Your task to perform on an android device: turn on bluetooth scan Image 0: 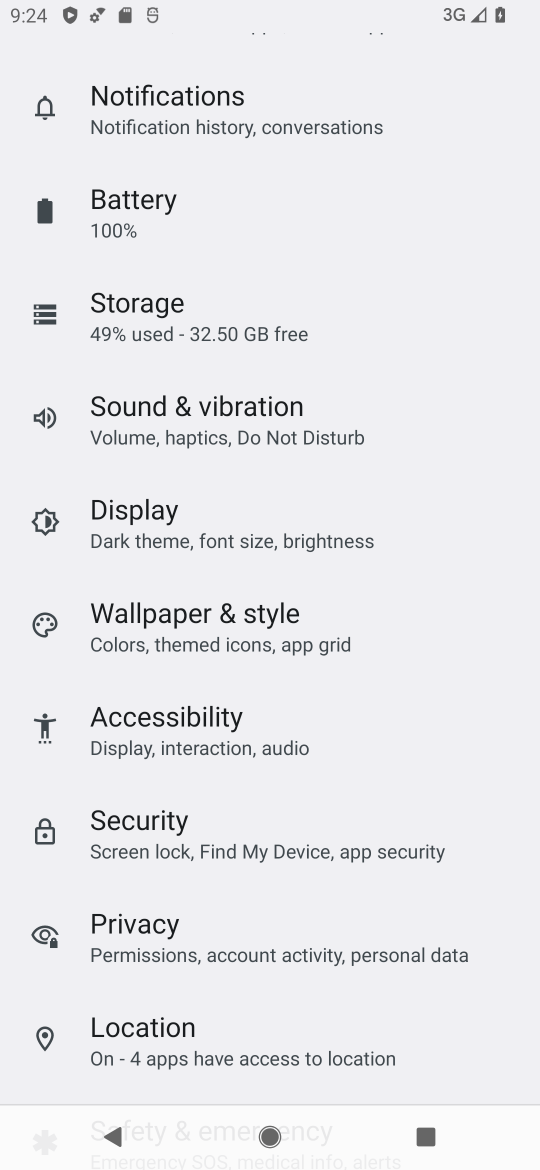
Step 0: press home button
Your task to perform on an android device: turn on bluetooth scan Image 1: 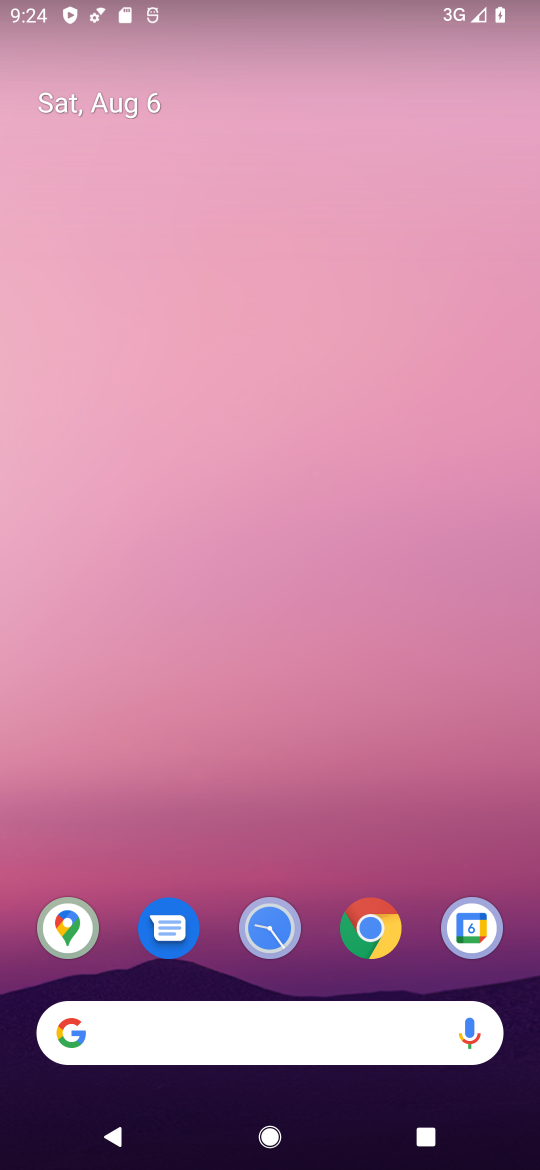
Step 1: drag from (292, 794) to (228, 232)
Your task to perform on an android device: turn on bluetooth scan Image 2: 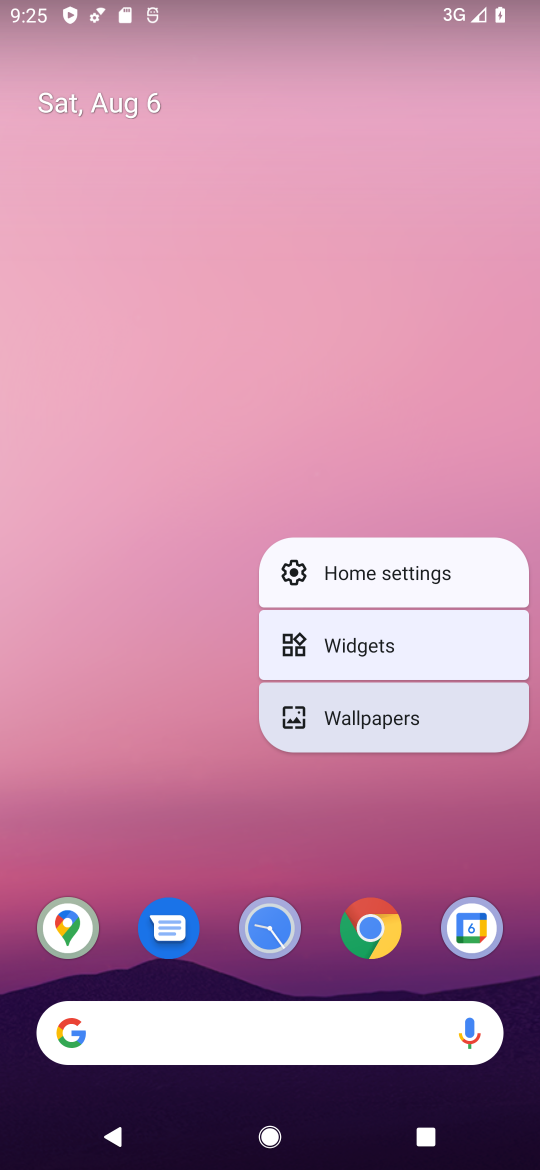
Step 2: click (143, 609)
Your task to perform on an android device: turn on bluetooth scan Image 3: 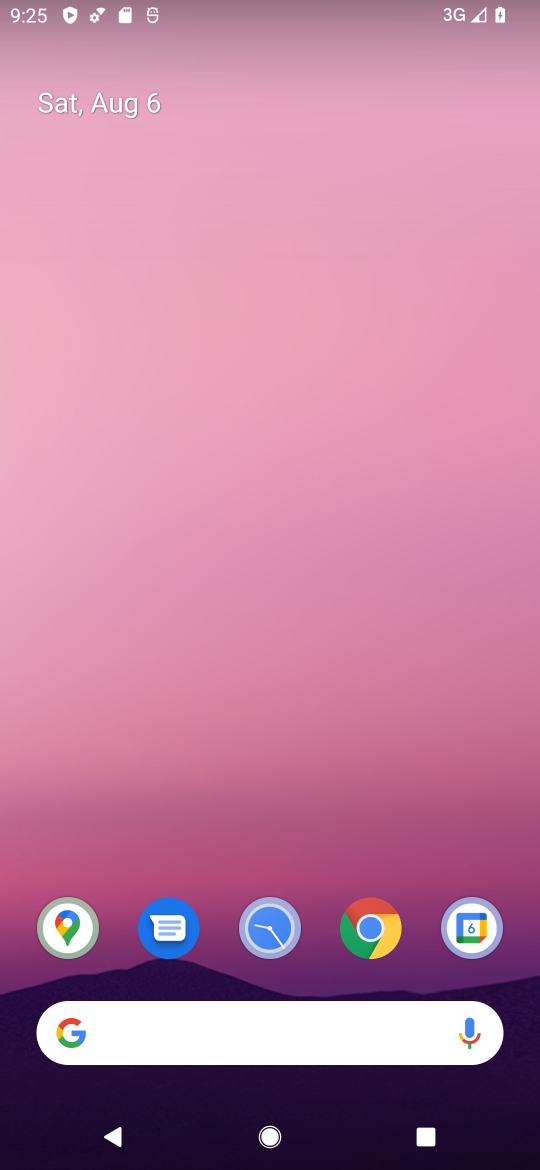
Step 3: drag from (257, 820) to (254, 202)
Your task to perform on an android device: turn on bluetooth scan Image 4: 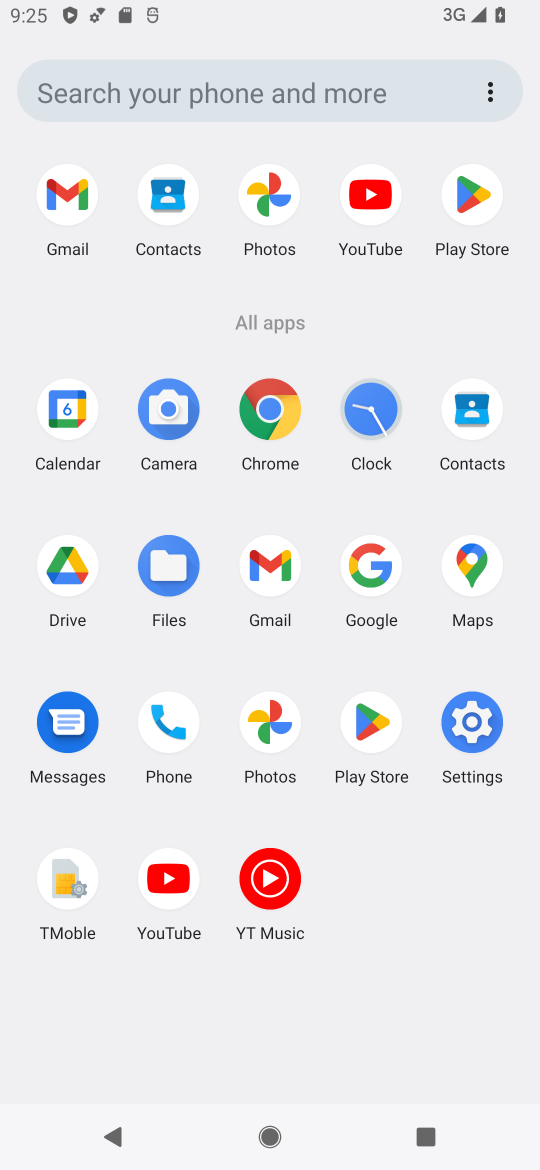
Step 4: click (473, 717)
Your task to perform on an android device: turn on bluetooth scan Image 5: 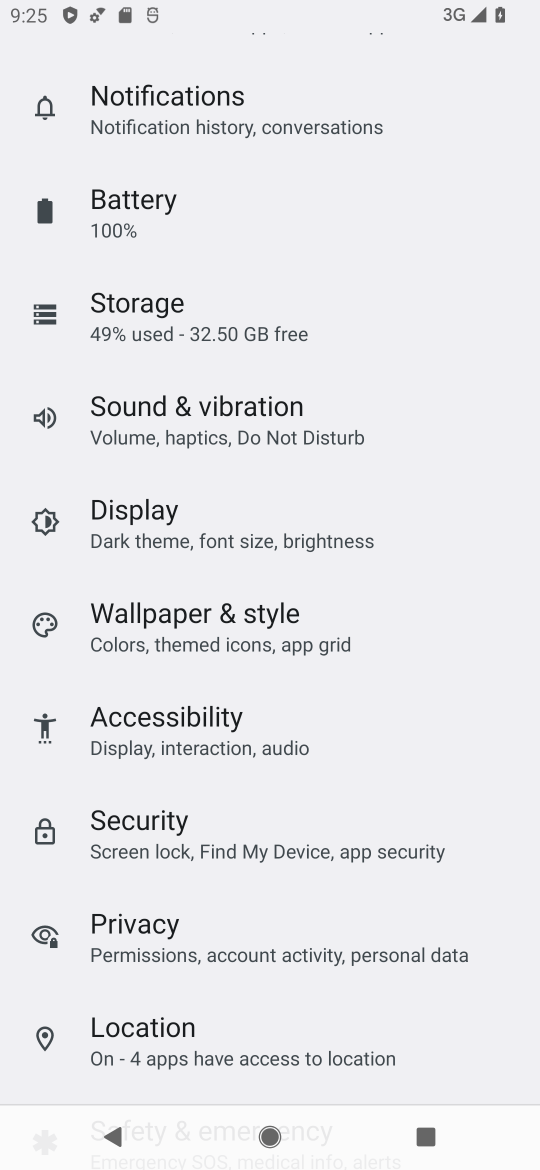
Step 5: click (148, 1022)
Your task to perform on an android device: turn on bluetooth scan Image 6: 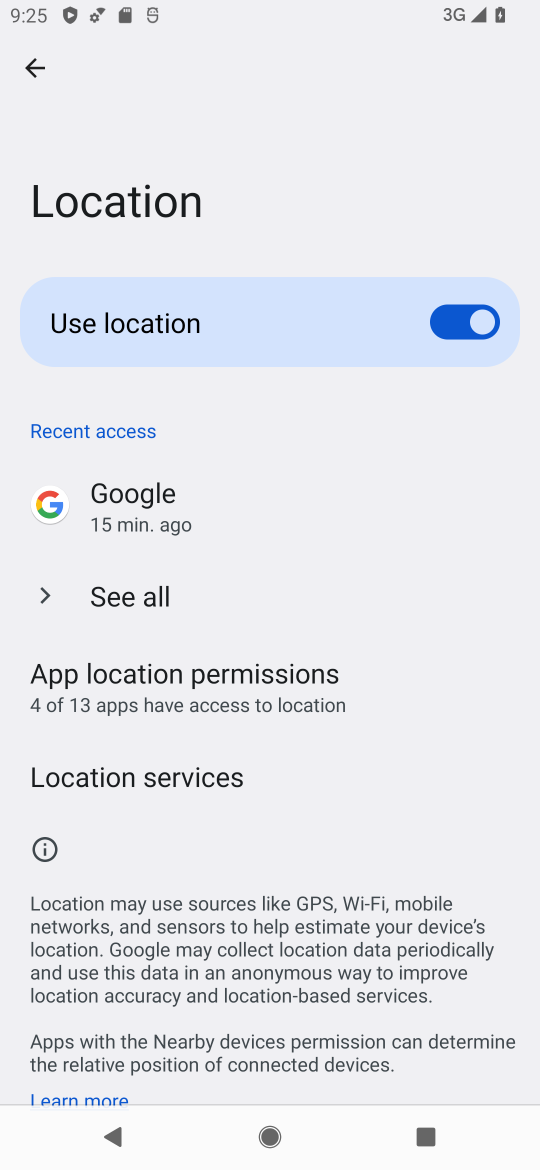
Step 6: drag from (309, 856) to (276, 445)
Your task to perform on an android device: turn on bluetooth scan Image 7: 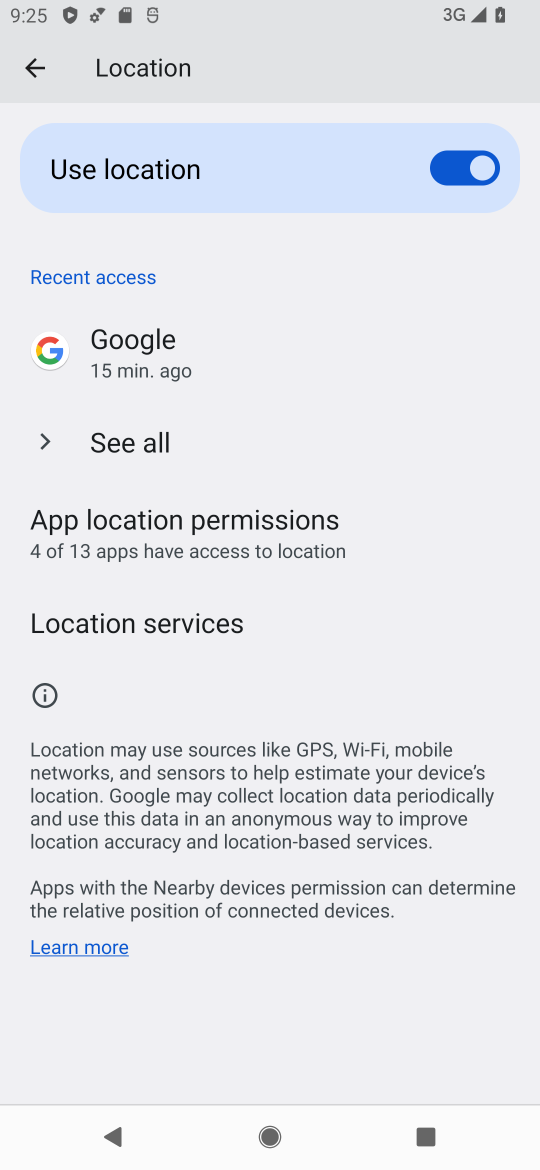
Step 7: click (103, 621)
Your task to perform on an android device: turn on bluetooth scan Image 8: 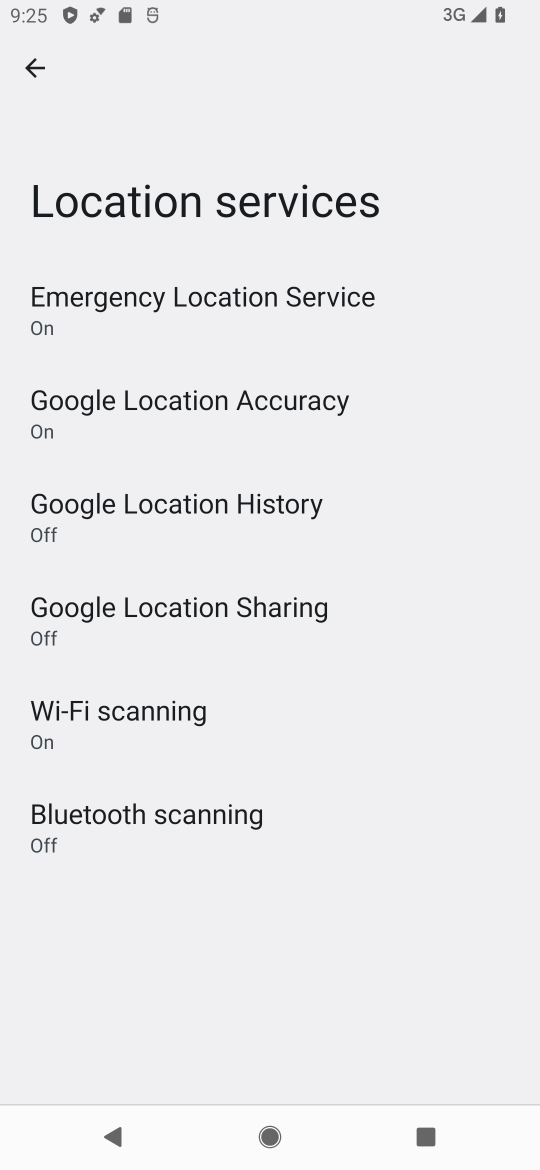
Step 8: click (149, 807)
Your task to perform on an android device: turn on bluetooth scan Image 9: 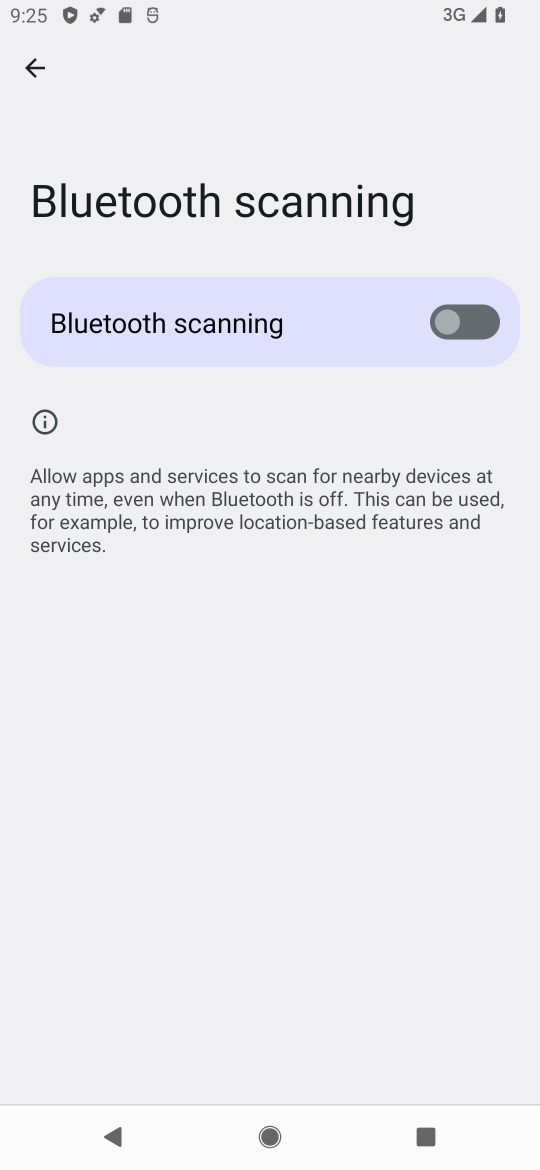
Step 9: click (450, 301)
Your task to perform on an android device: turn on bluetooth scan Image 10: 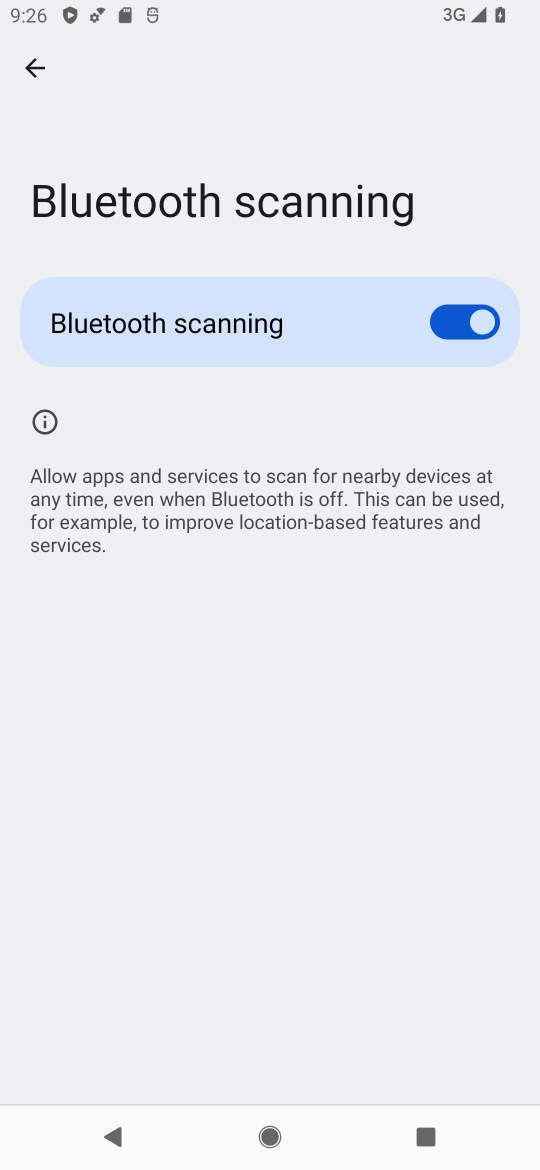
Step 10: task complete